Your task to perform on an android device: Open Google Chrome and open the bookmarks view Image 0: 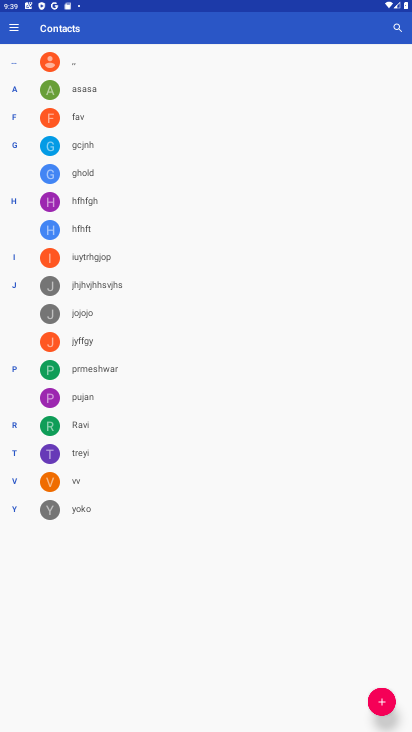
Step 0: press home button
Your task to perform on an android device: Open Google Chrome and open the bookmarks view Image 1: 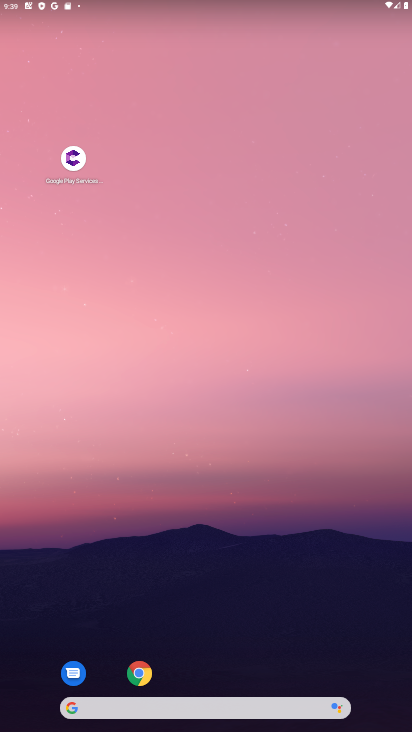
Step 1: click (127, 680)
Your task to perform on an android device: Open Google Chrome and open the bookmarks view Image 2: 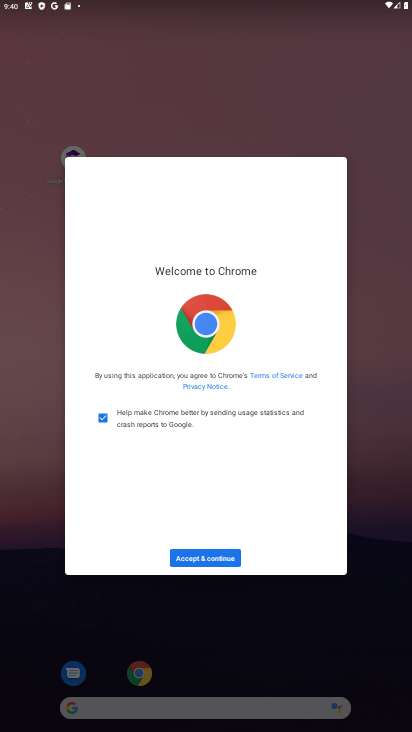
Step 2: click (175, 561)
Your task to perform on an android device: Open Google Chrome and open the bookmarks view Image 3: 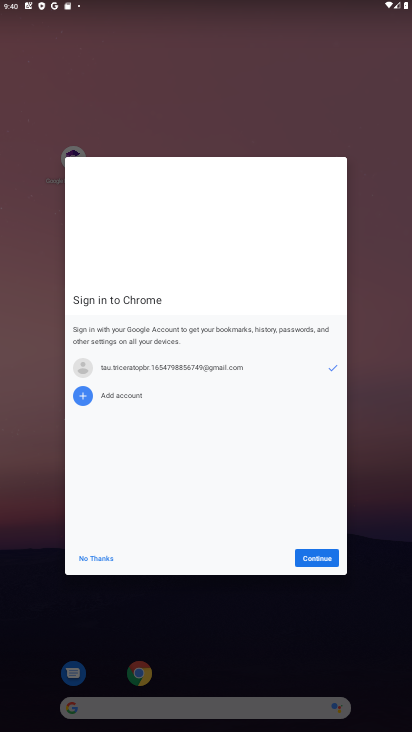
Step 3: click (305, 563)
Your task to perform on an android device: Open Google Chrome and open the bookmarks view Image 4: 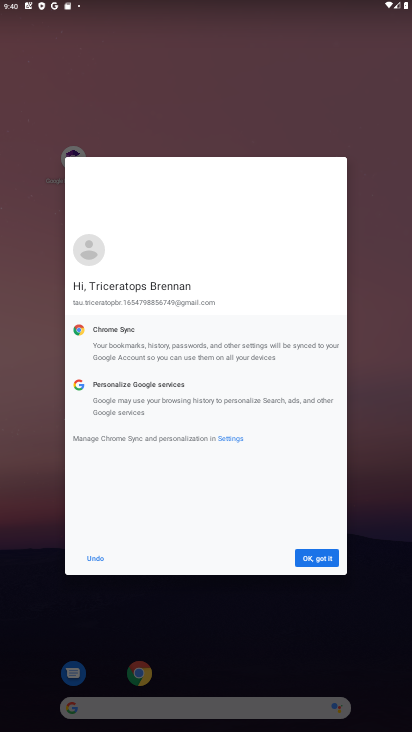
Step 4: click (310, 552)
Your task to perform on an android device: Open Google Chrome and open the bookmarks view Image 5: 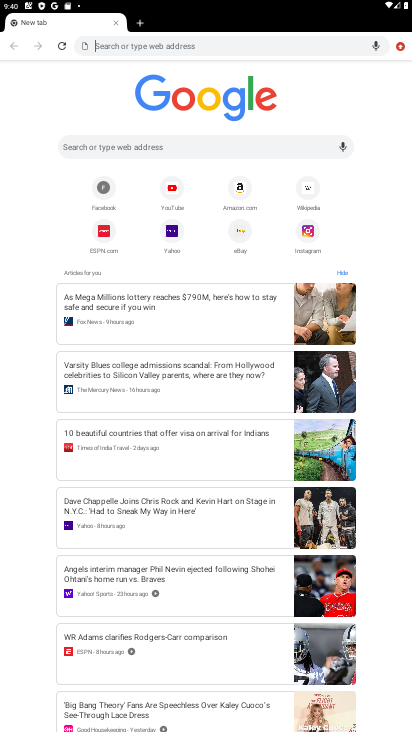
Step 5: click (401, 46)
Your task to perform on an android device: Open Google Chrome and open the bookmarks view Image 6: 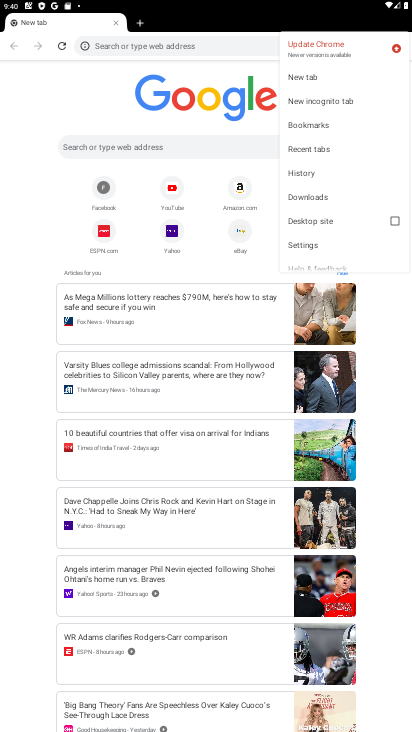
Step 6: click (324, 124)
Your task to perform on an android device: Open Google Chrome and open the bookmarks view Image 7: 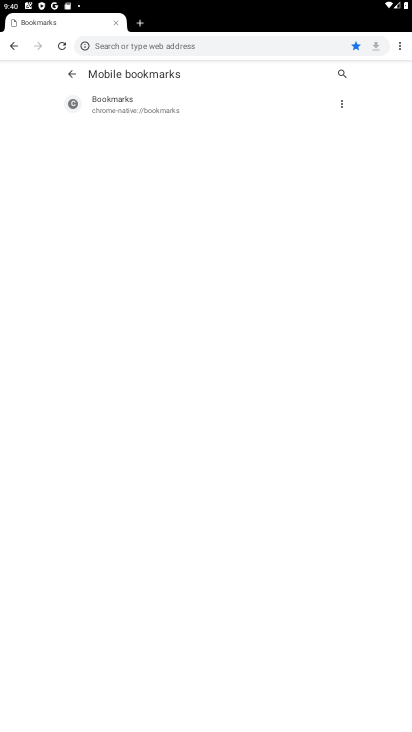
Step 7: task complete